Your task to perform on an android device: Open calendar and show me the third week of next month Image 0: 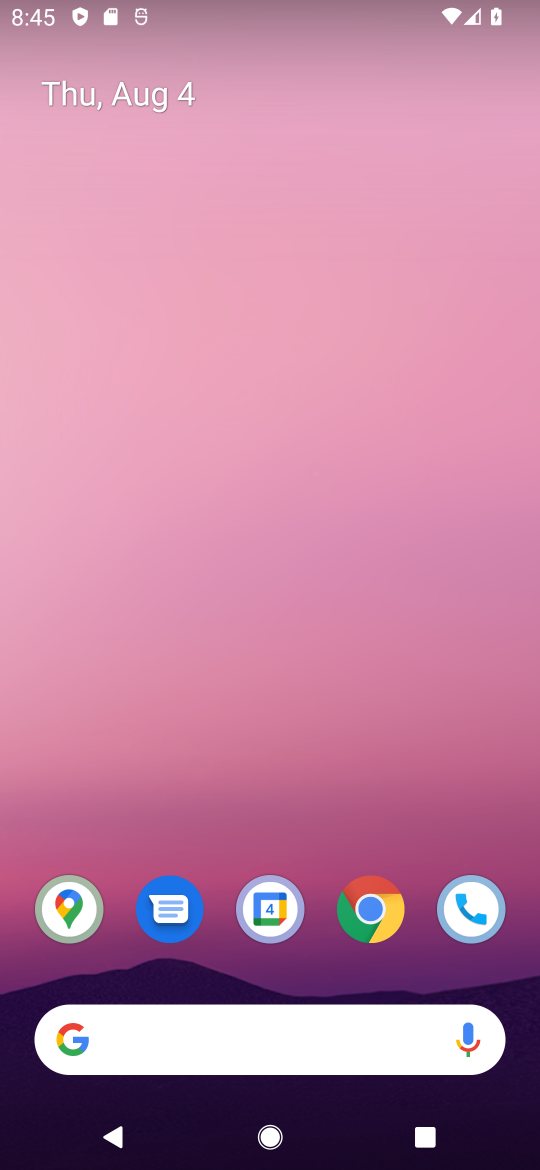
Step 0: drag from (307, 821) to (318, 387)
Your task to perform on an android device: Open calendar and show me the third week of next month Image 1: 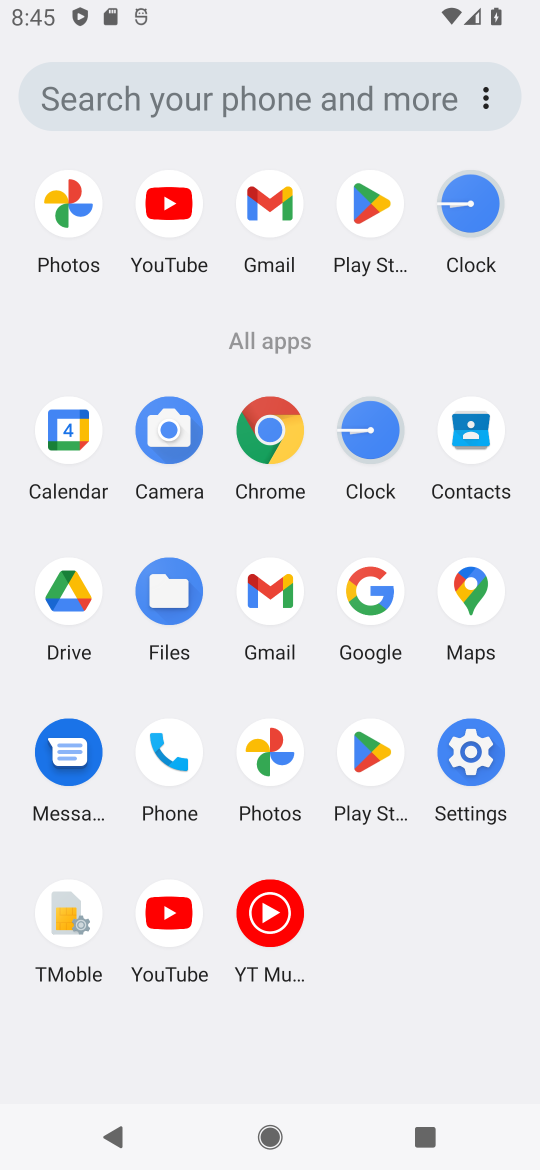
Step 1: click (75, 427)
Your task to perform on an android device: Open calendar and show me the third week of next month Image 2: 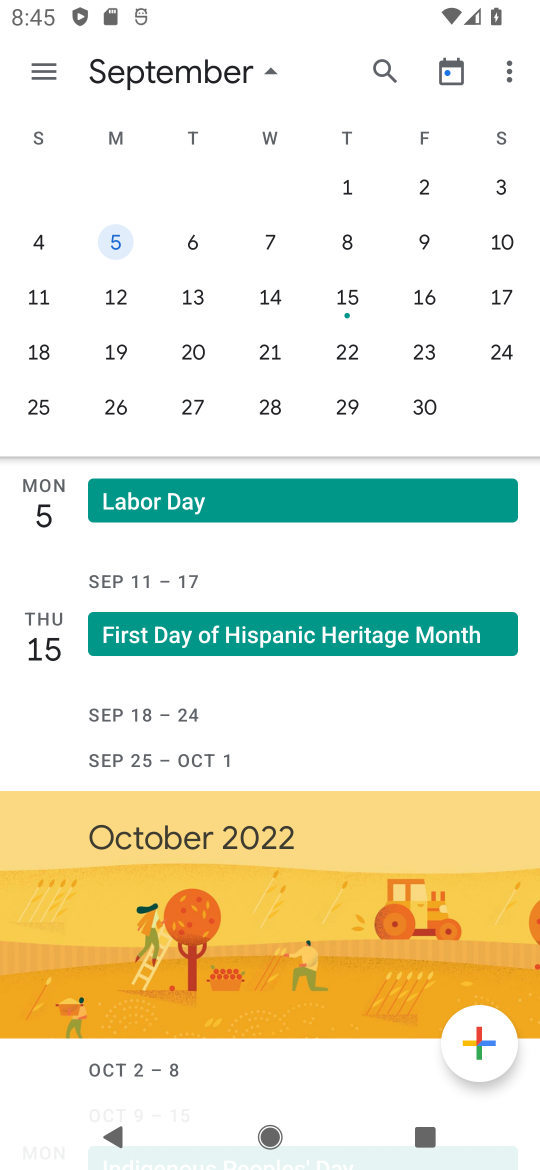
Step 2: click (119, 299)
Your task to perform on an android device: Open calendar and show me the third week of next month Image 3: 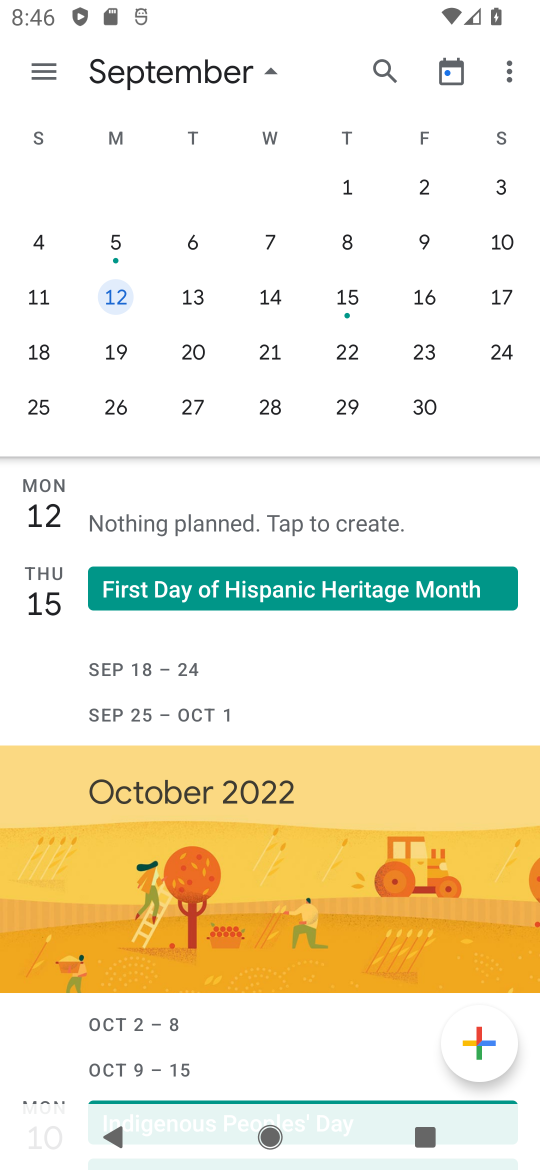
Step 3: task complete